Your task to perform on an android device: star an email in the gmail app Image 0: 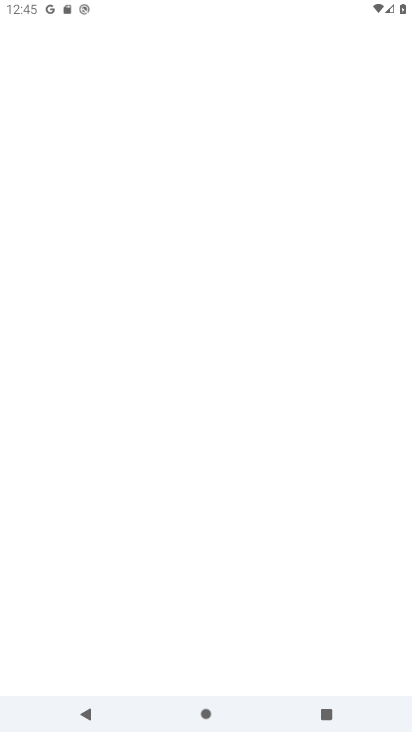
Step 0: click (134, 616)
Your task to perform on an android device: star an email in the gmail app Image 1: 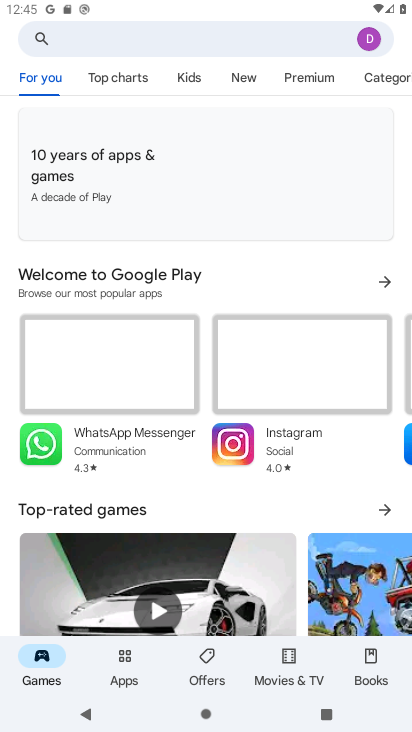
Step 1: press home button
Your task to perform on an android device: star an email in the gmail app Image 2: 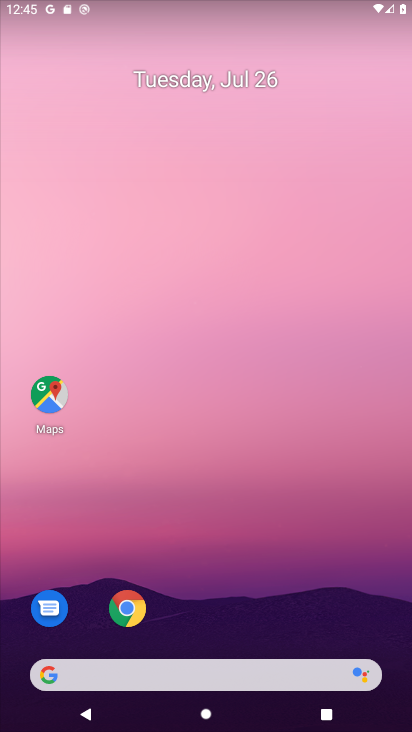
Step 2: drag from (189, 638) to (184, 127)
Your task to perform on an android device: star an email in the gmail app Image 3: 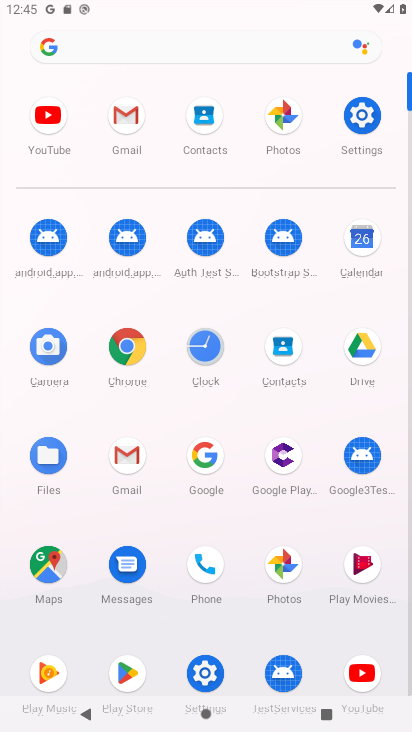
Step 3: click (108, 103)
Your task to perform on an android device: star an email in the gmail app Image 4: 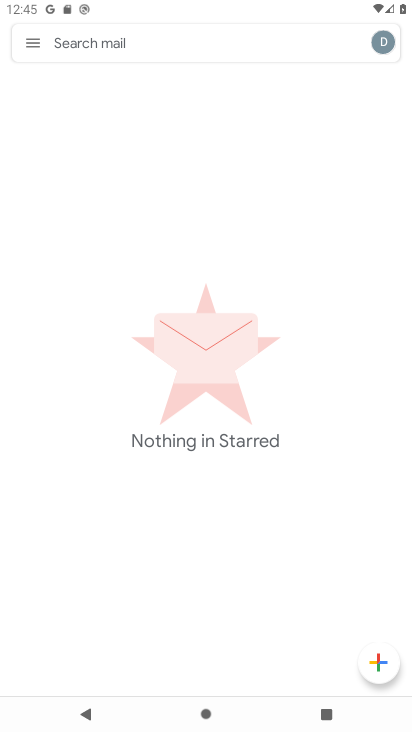
Step 4: click (42, 45)
Your task to perform on an android device: star an email in the gmail app Image 5: 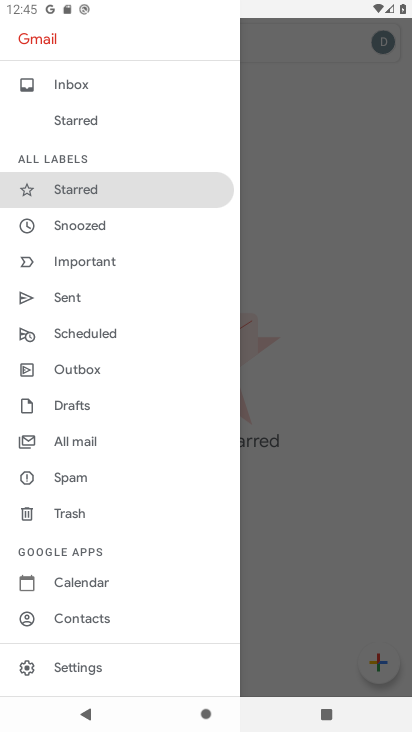
Step 5: click (85, 451)
Your task to perform on an android device: star an email in the gmail app Image 6: 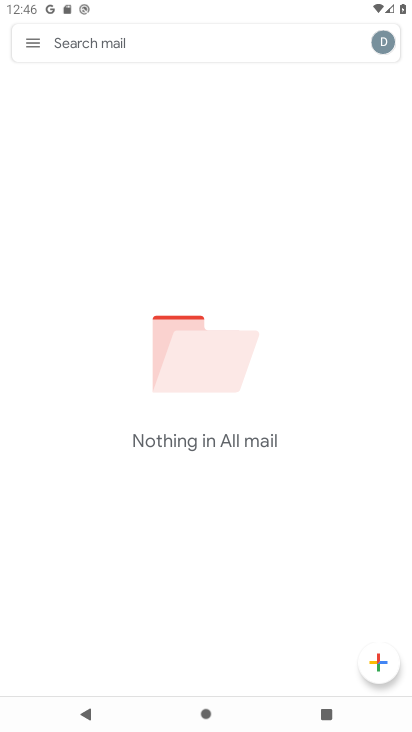
Step 6: task complete